Your task to perform on an android device: Go to ESPN.com Image 0: 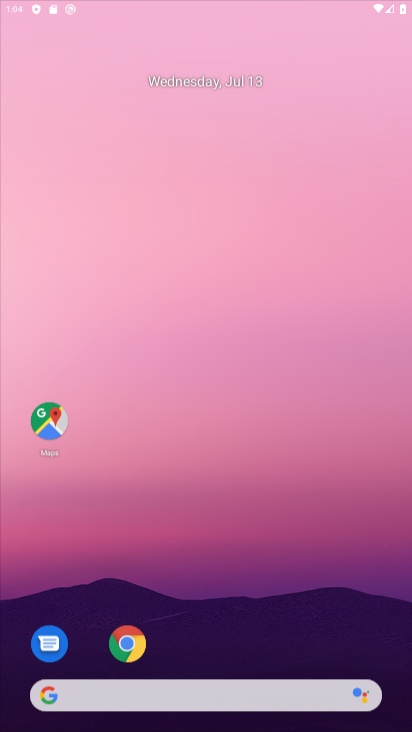
Step 0: press home button
Your task to perform on an android device: Go to ESPN.com Image 1: 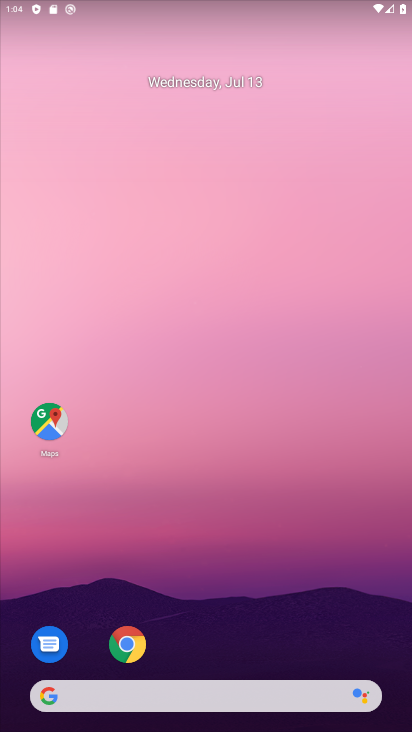
Step 1: click (130, 684)
Your task to perform on an android device: Go to ESPN.com Image 2: 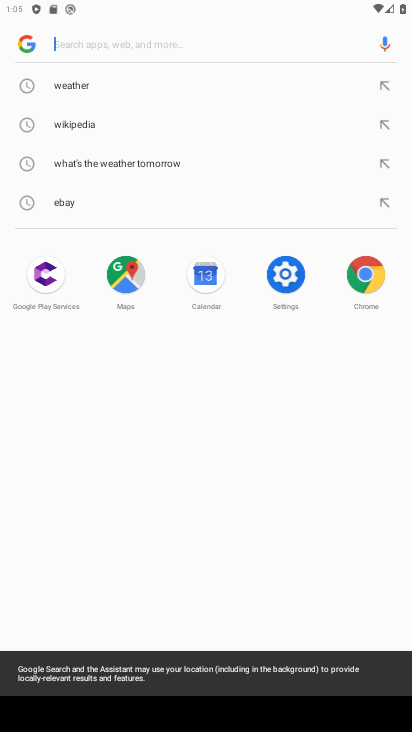
Step 2: type "ESPN.com"
Your task to perform on an android device: Go to ESPN.com Image 3: 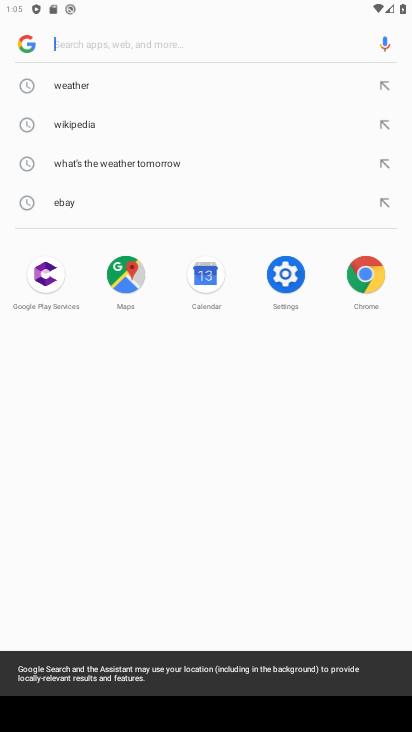
Step 3: click (85, 35)
Your task to perform on an android device: Go to ESPN.com Image 4: 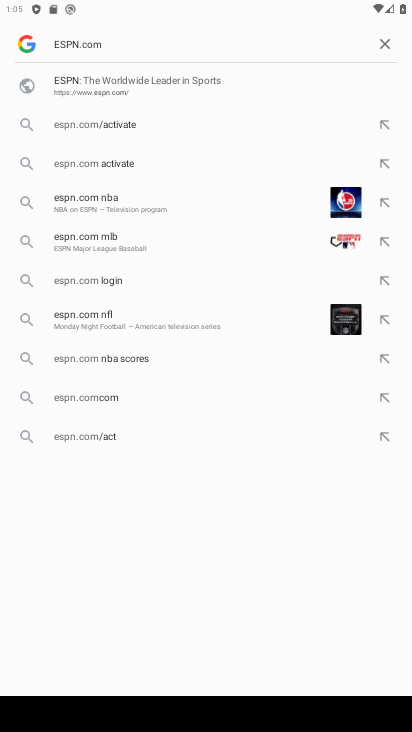
Step 4: press enter
Your task to perform on an android device: Go to ESPN.com Image 5: 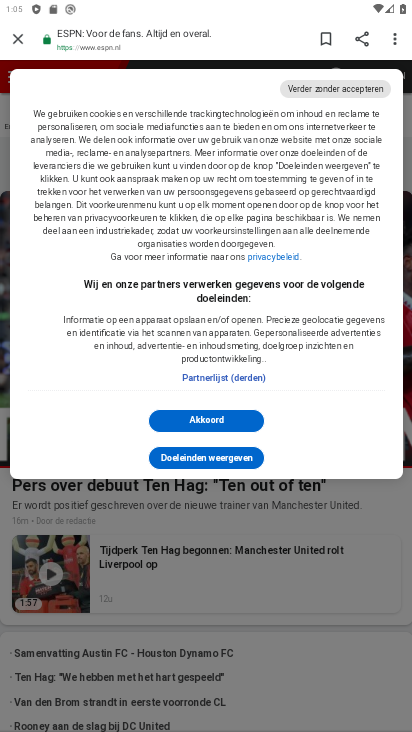
Step 5: click (197, 416)
Your task to perform on an android device: Go to ESPN.com Image 6: 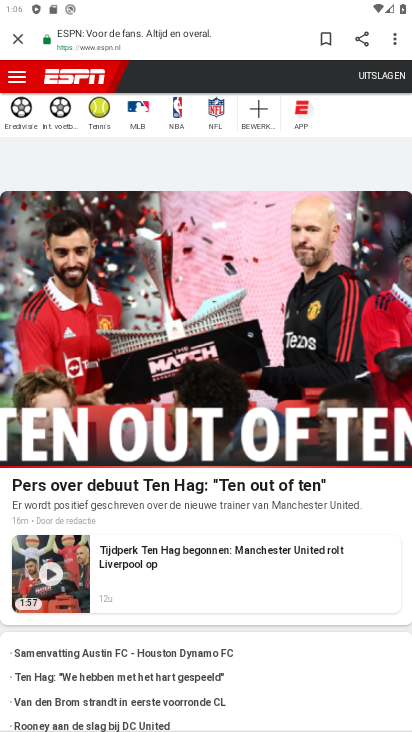
Step 6: task complete